Your task to perform on an android device: Go to settings Image 0: 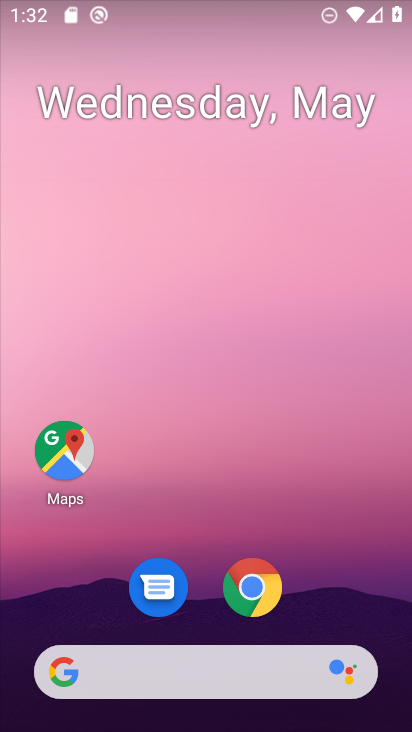
Step 0: drag from (314, 616) to (203, 267)
Your task to perform on an android device: Go to settings Image 1: 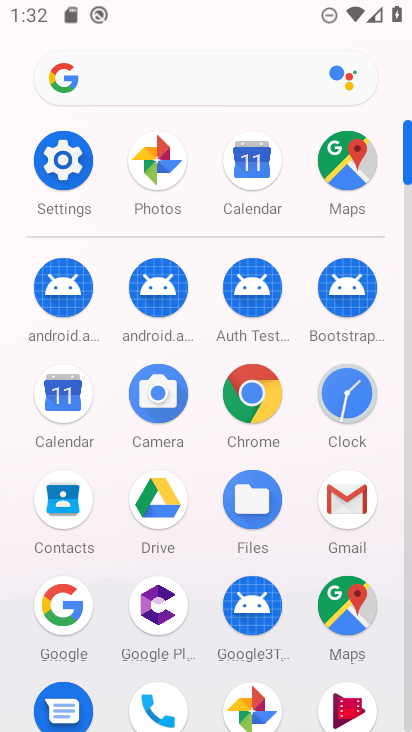
Step 1: click (52, 171)
Your task to perform on an android device: Go to settings Image 2: 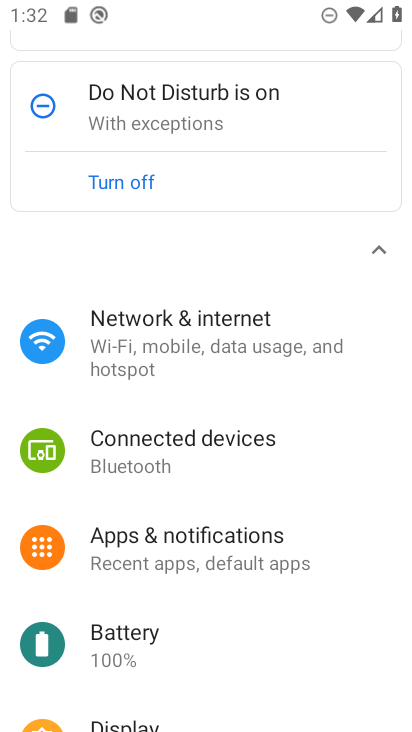
Step 2: task complete